Your task to perform on an android device: turn on improve location accuracy Image 0: 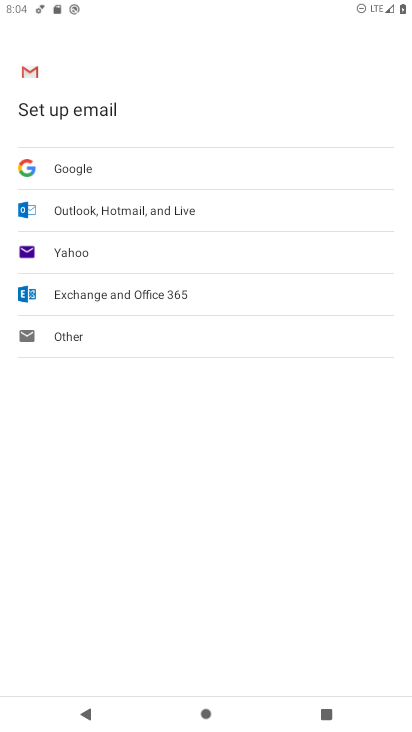
Step 0: press back button
Your task to perform on an android device: turn on improve location accuracy Image 1: 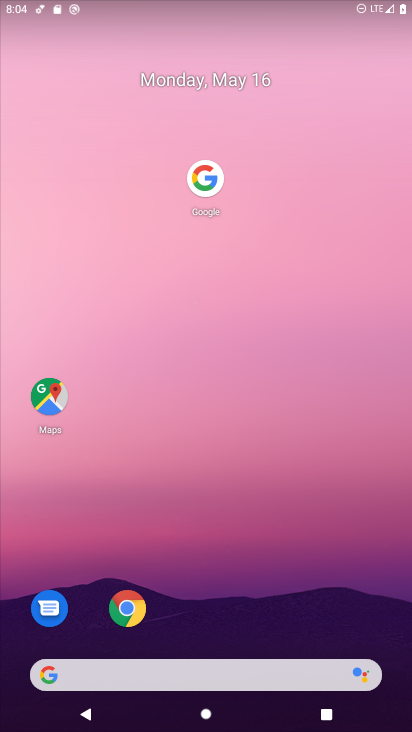
Step 1: drag from (258, 618) to (292, 156)
Your task to perform on an android device: turn on improve location accuracy Image 2: 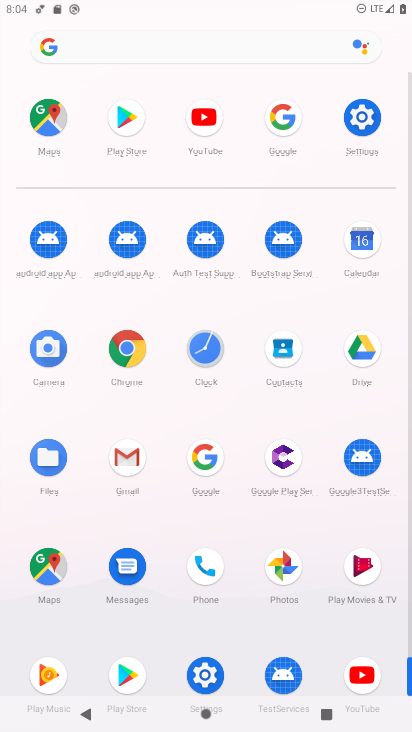
Step 2: drag from (160, 561) to (171, 387)
Your task to perform on an android device: turn on improve location accuracy Image 3: 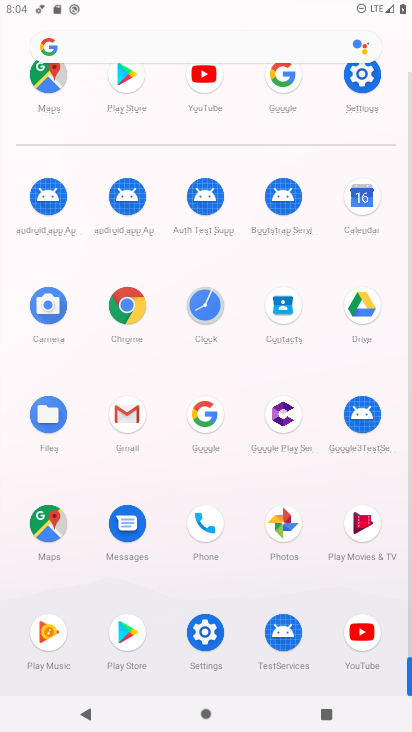
Step 3: click (203, 631)
Your task to perform on an android device: turn on improve location accuracy Image 4: 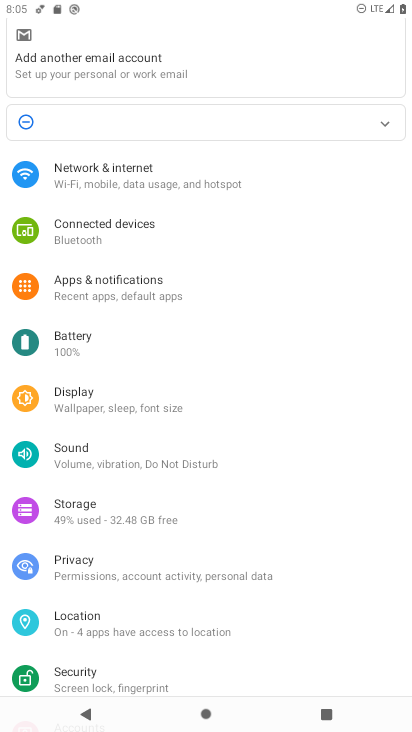
Step 4: click (97, 624)
Your task to perform on an android device: turn on improve location accuracy Image 5: 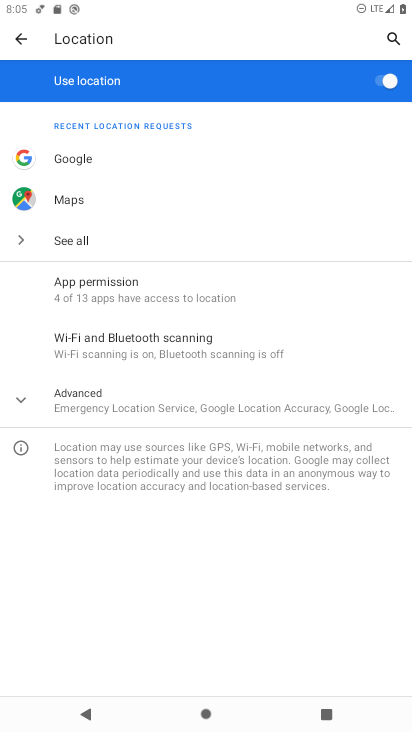
Step 5: click (185, 409)
Your task to perform on an android device: turn on improve location accuracy Image 6: 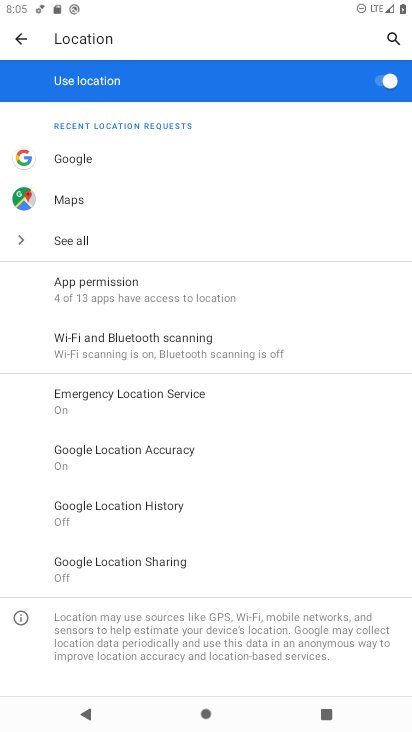
Step 6: click (158, 447)
Your task to perform on an android device: turn on improve location accuracy Image 7: 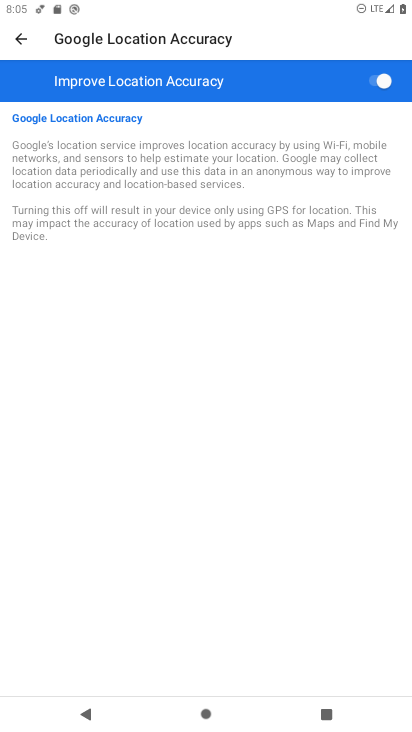
Step 7: task complete